Your task to perform on an android device: change the clock style Image 0: 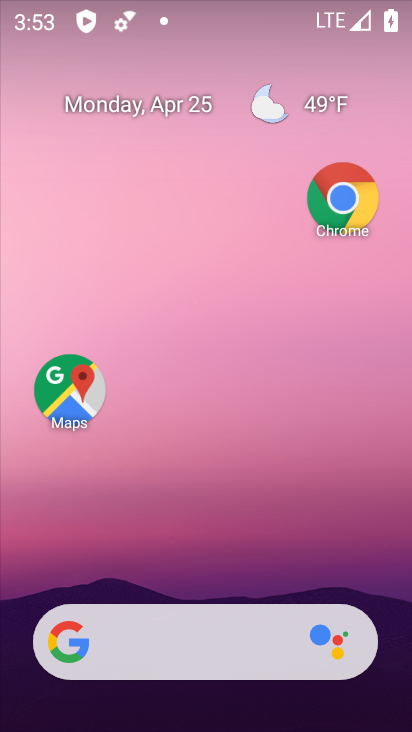
Step 0: drag from (160, 613) to (293, 109)
Your task to perform on an android device: change the clock style Image 1: 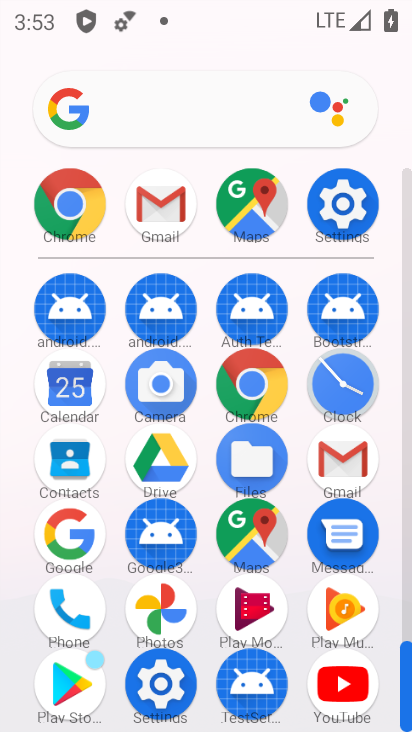
Step 1: click (348, 387)
Your task to perform on an android device: change the clock style Image 2: 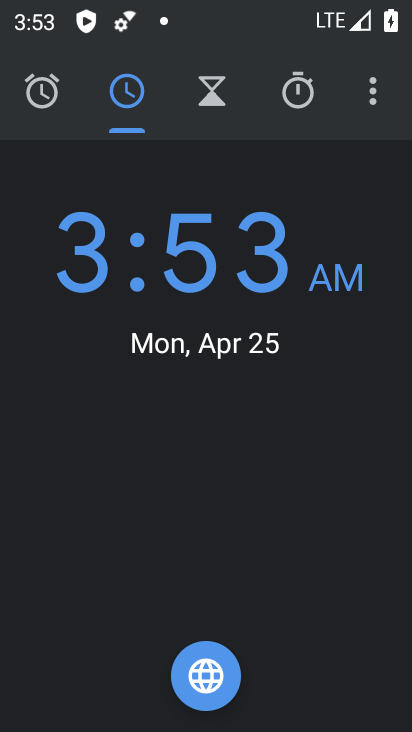
Step 2: click (375, 105)
Your task to perform on an android device: change the clock style Image 3: 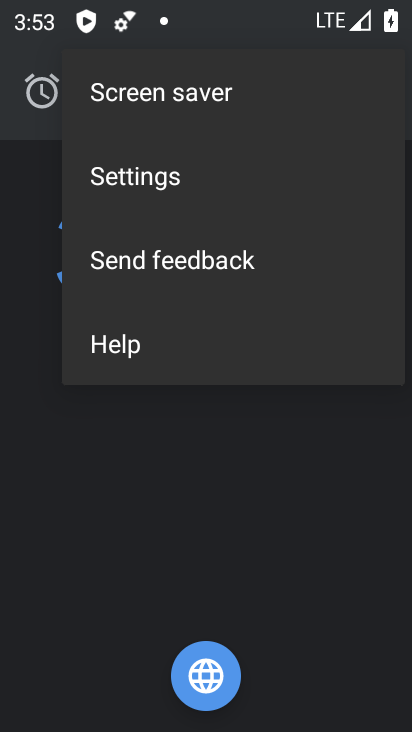
Step 3: click (127, 172)
Your task to perform on an android device: change the clock style Image 4: 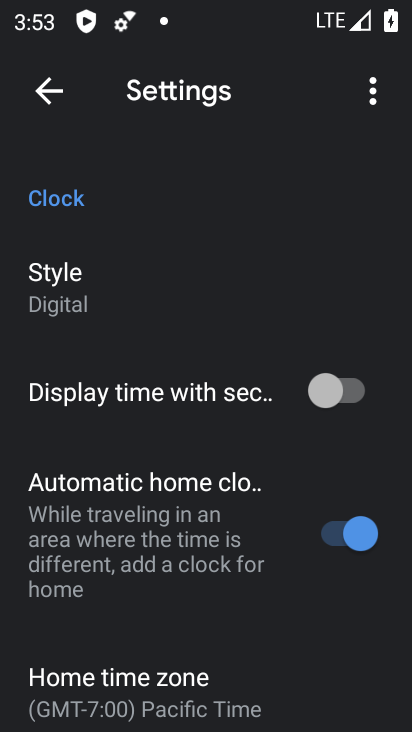
Step 4: click (73, 303)
Your task to perform on an android device: change the clock style Image 5: 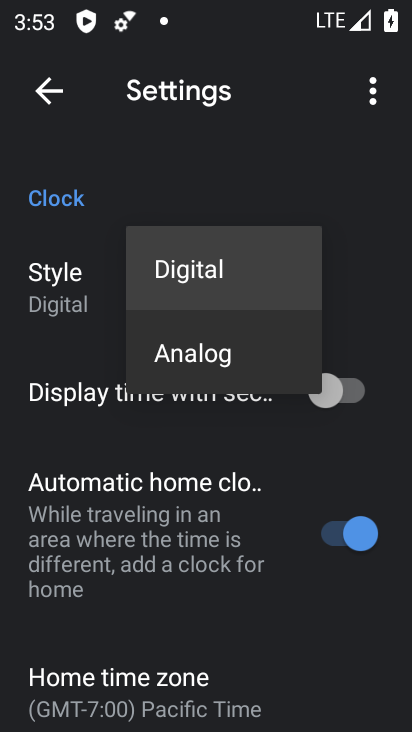
Step 5: click (231, 348)
Your task to perform on an android device: change the clock style Image 6: 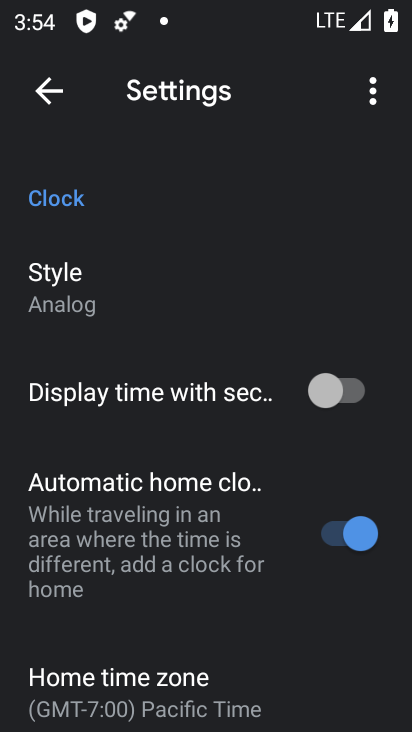
Step 6: task complete